Your task to perform on an android device: Open Youtube and go to "Your channel" Image 0: 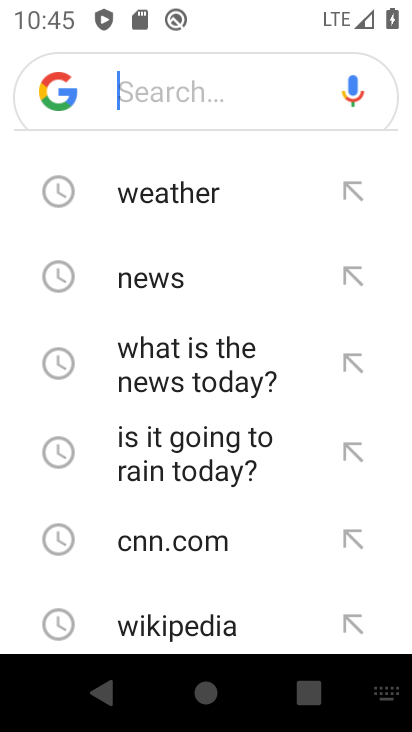
Step 0: press home button
Your task to perform on an android device: Open Youtube and go to "Your channel" Image 1: 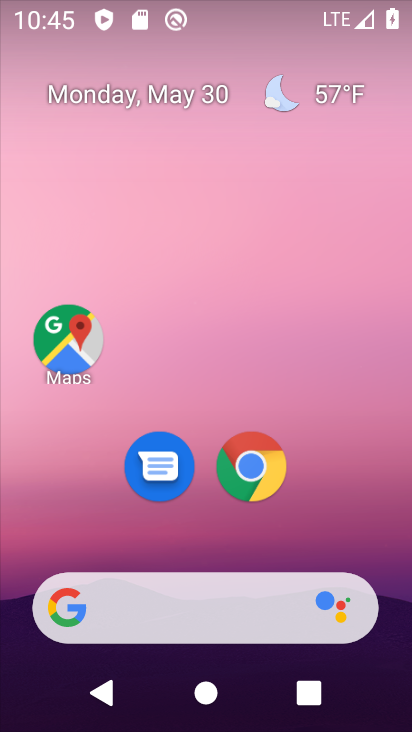
Step 1: drag from (368, 536) to (323, 76)
Your task to perform on an android device: Open Youtube and go to "Your channel" Image 2: 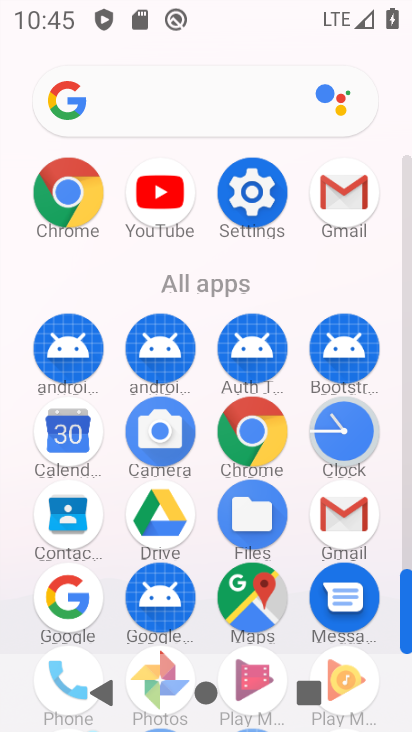
Step 2: click (147, 190)
Your task to perform on an android device: Open Youtube and go to "Your channel" Image 3: 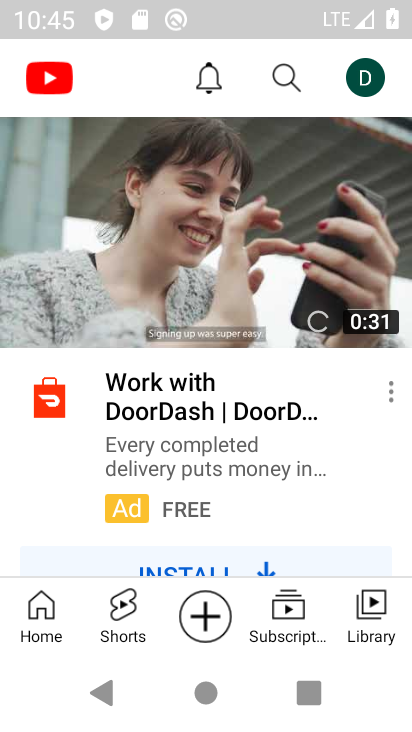
Step 3: click (368, 69)
Your task to perform on an android device: Open Youtube and go to "Your channel" Image 4: 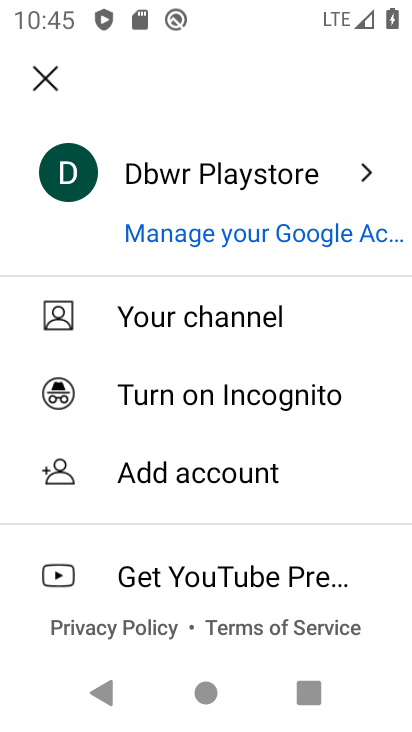
Step 4: click (151, 305)
Your task to perform on an android device: Open Youtube and go to "Your channel" Image 5: 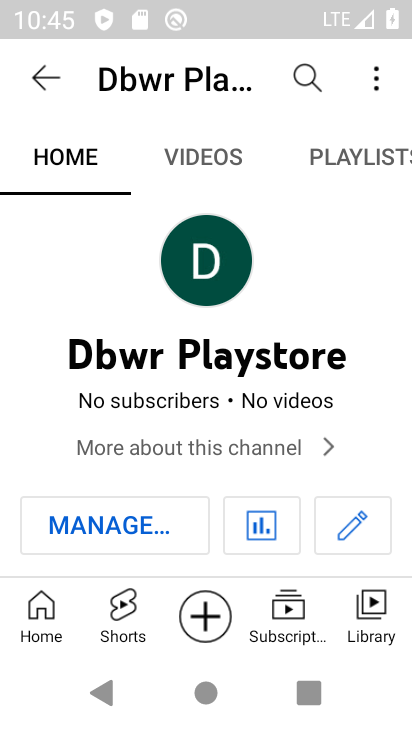
Step 5: task complete